Your task to perform on an android device: Search for vegetarian restaurants on Maps Image 0: 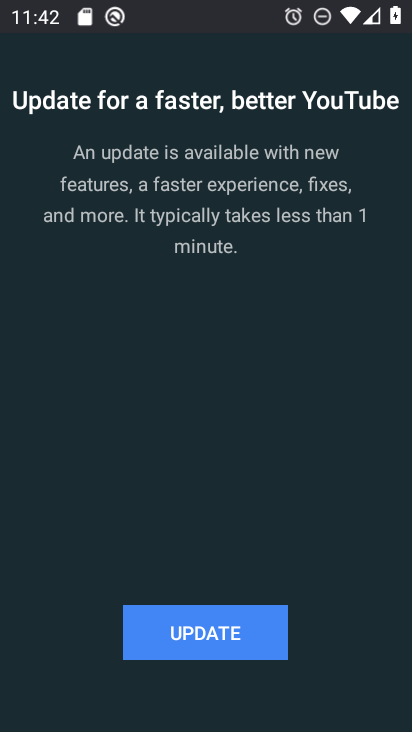
Step 0: press home button
Your task to perform on an android device: Search for vegetarian restaurants on Maps Image 1: 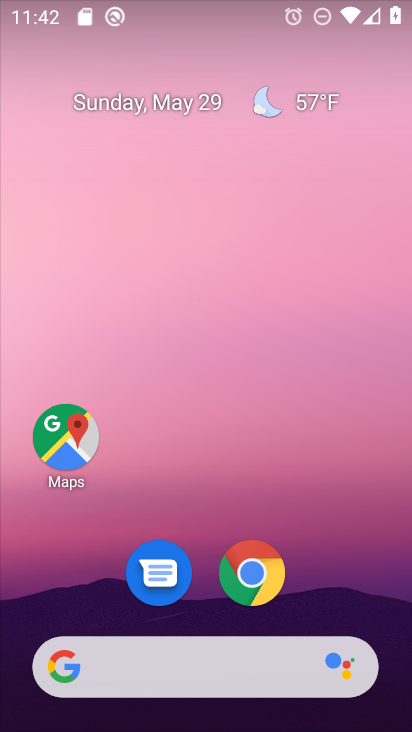
Step 1: drag from (199, 679) to (253, 4)
Your task to perform on an android device: Search for vegetarian restaurants on Maps Image 2: 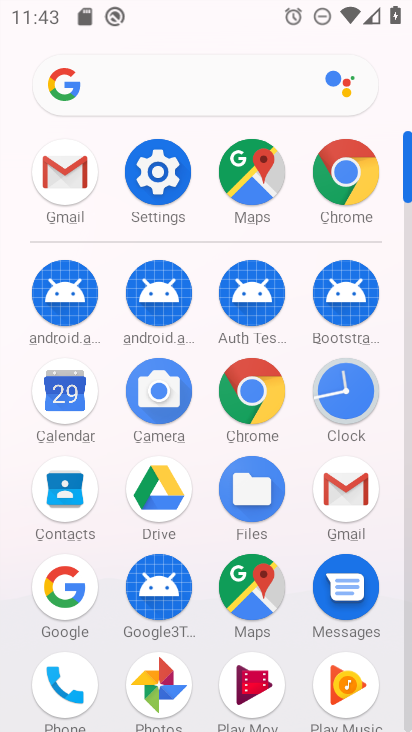
Step 2: click (268, 603)
Your task to perform on an android device: Search for vegetarian restaurants on Maps Image 3: 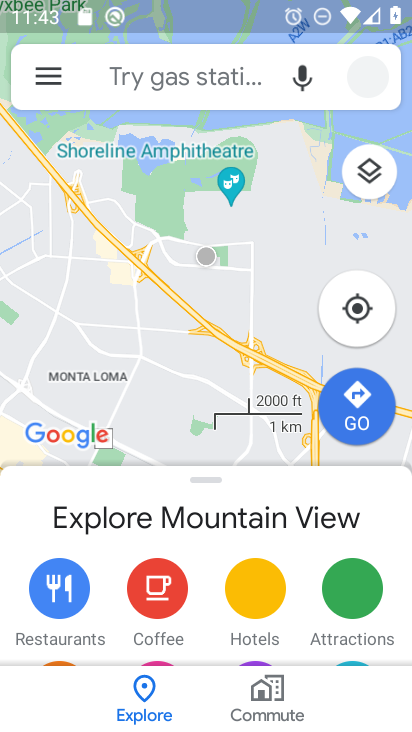
Step 3: click (120, 70)
Your task to perform on an android device: Search for vegetarian restaurants on Maps Image 4: 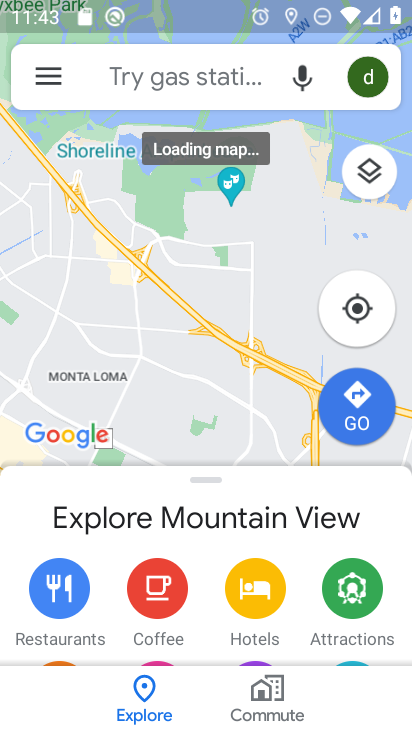
Step 4: click (238, 73)
Your task to perform on an android device: Search for vegetarian restaurants on Maps Image 5: 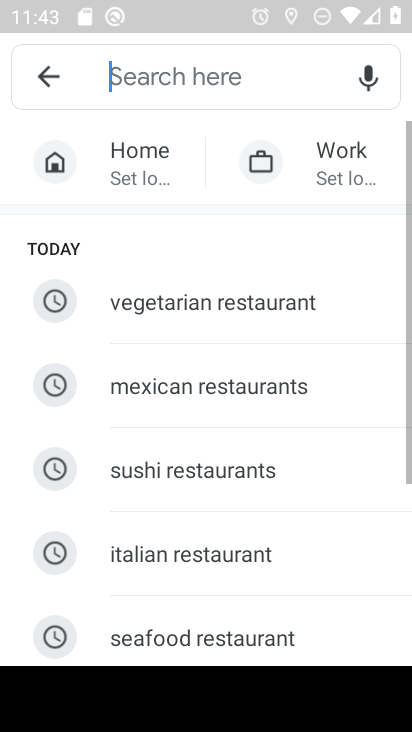
Step 5: click (263, 327)
Your task to perform on an android device: Search for vegetarian restaurants on Maps Image 6: 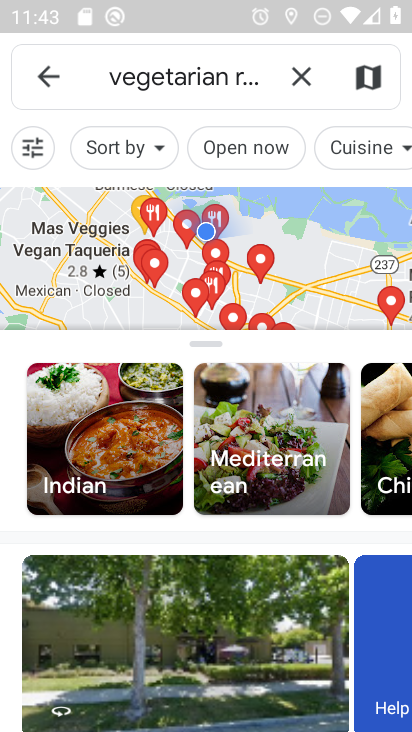
Step 6: task complete